Your task to perform on an android device: check android version Image 0: 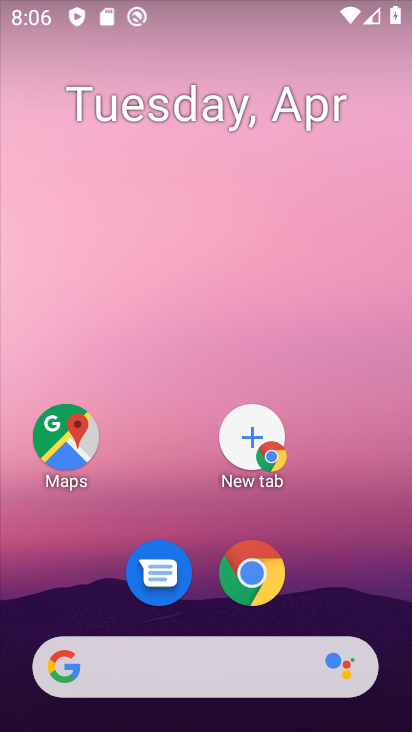
Step 0: drag from (168, 475) to (133, 18)
Your task to perform on an android device: check android version Image 1: 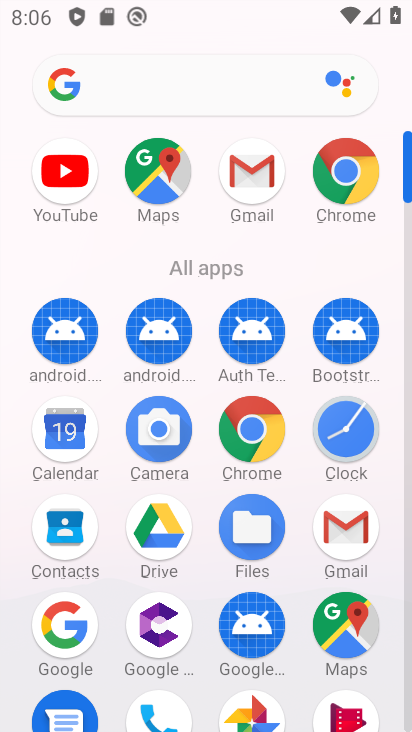
Step 1: drag from (202, 694) to (247, 238)
Your task to perform on an android device: check android version Image 2: 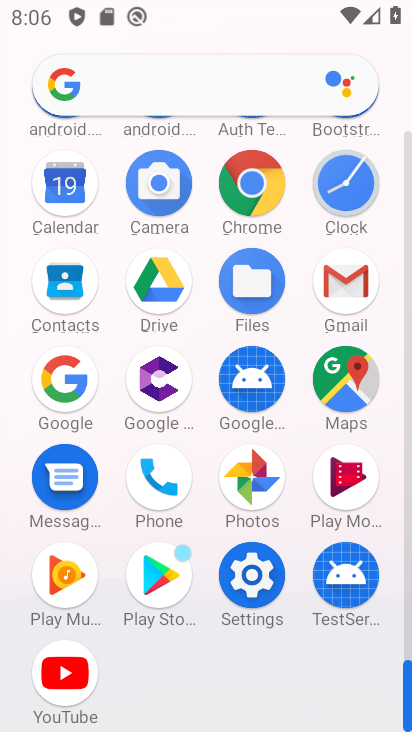
Step 2: click (248, 587)
Your task to perform on an android device: check android version Image 3: 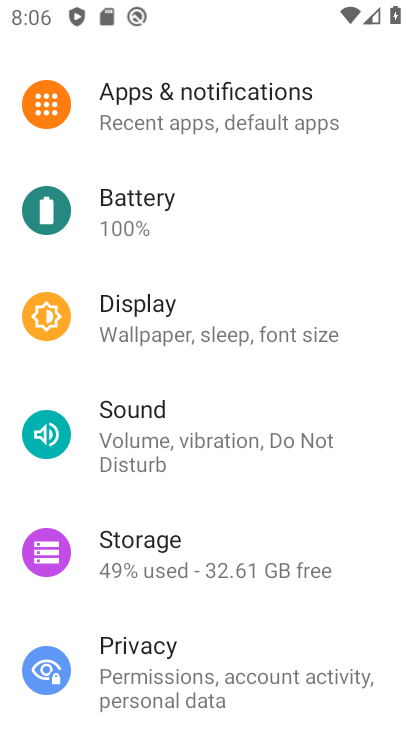
Step 3: drag from (223, 621) to (322, 93)
Your task to perform on an android device: check android version Image 4: 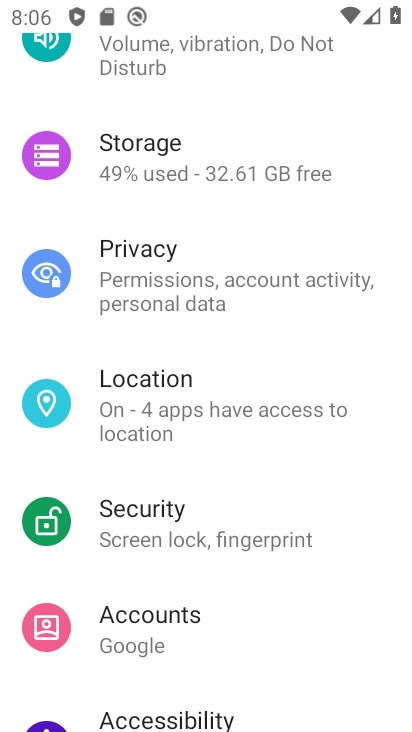
Step 4: drag from (301, 612) to (313, 167)
Your task to perform on an android device: check android version Image 5: 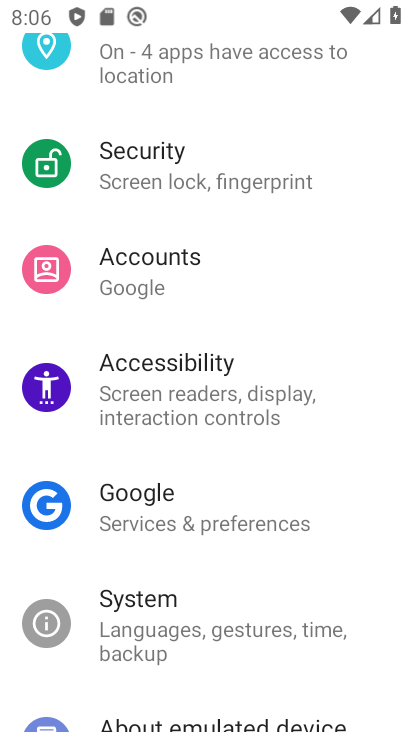
Step 5: drag from (236, 674) to (256, 130)
Your task to perform on an android device: check android version Image 6: 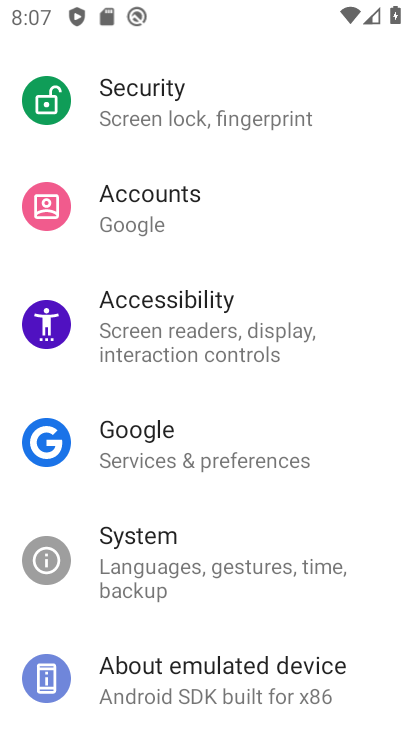
Step 6: click (331, 706)
Your task to perform on an android device: check android version Image 7: 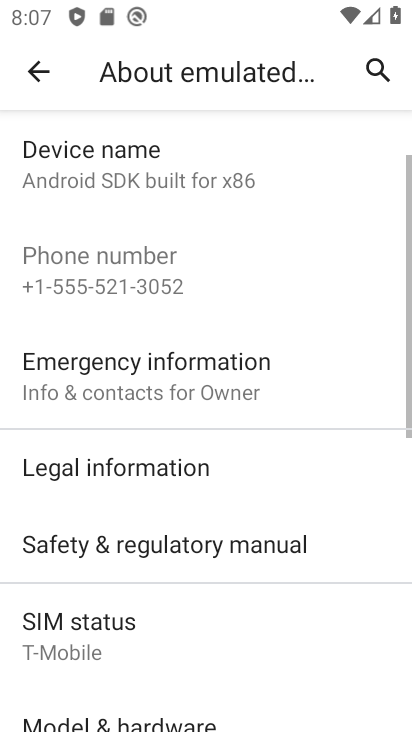
Step 7: drag from (213, 671) to (361, 39)
Your task to perform on an android device: check android version Image 8: 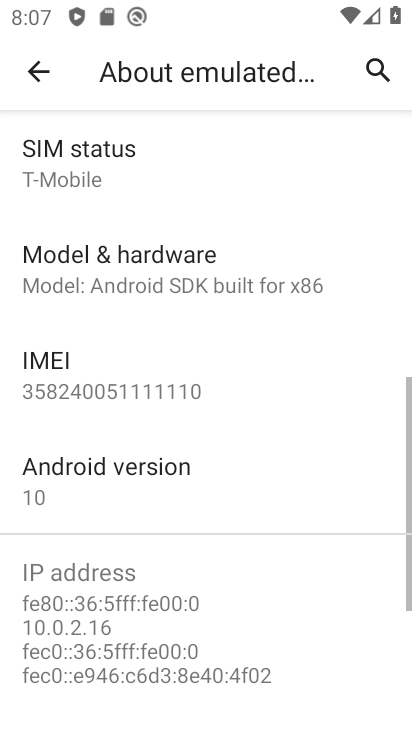
Step 8: click (200, 474)
Your task to perform on an android device: check android version Image 9: 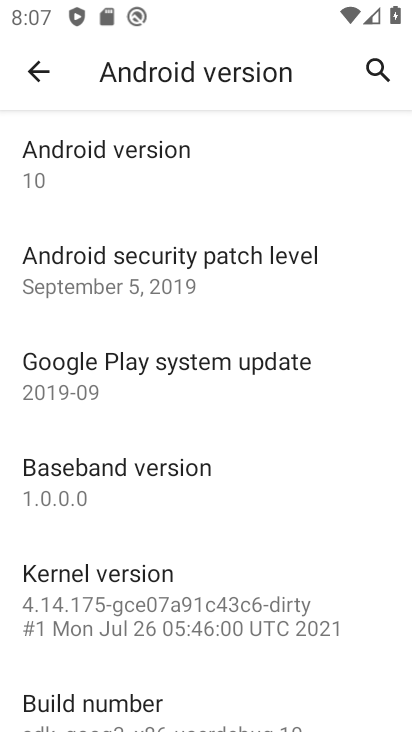
Step 9: task complete